Your task to perform on an android device: Show the shopping cart on amazon.com. Search for "amazon basics triple a" on amazon.com, select the first entry, and add it to the cart. Image 0: 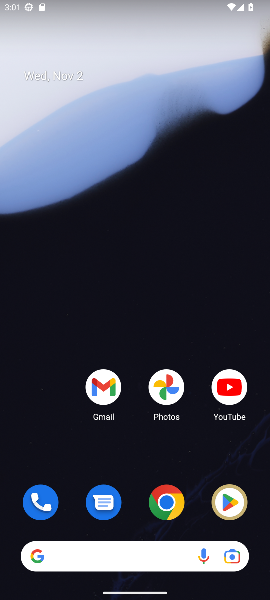
Step 0: click (171, 503)
Your task to perform on an android device: Show the shopping cart on amazon.com. Search for "amazon basics triple a" on amazon.com, select the first entry, and add it to the cart. Image 1: 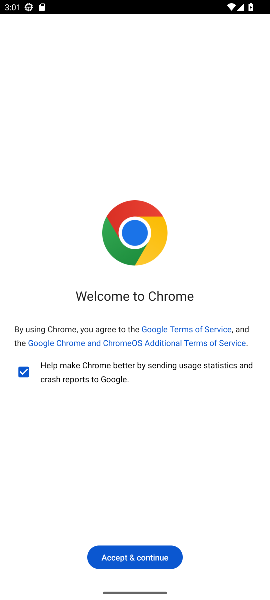
Step 1: click (129, 555)
Your task to perform on an android device: Show the shopping cart on amazon.com. Search for "amazon basics triple a" on amazon.com, select the first entry, and add it to the cart. Image 2: 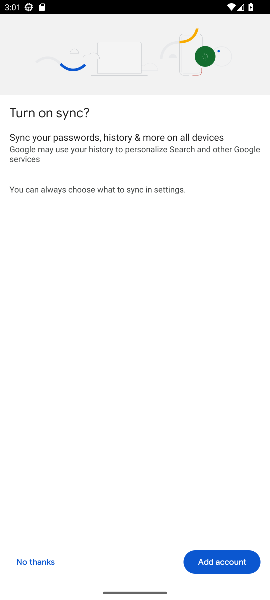
Step 2: click (20, 557)
Your task to perform on an android device: Show the shopping cart on amazon.com. Search for "amazon basics triple a" on amazon.com, select the first entry, and add it to the cart. Image 3: 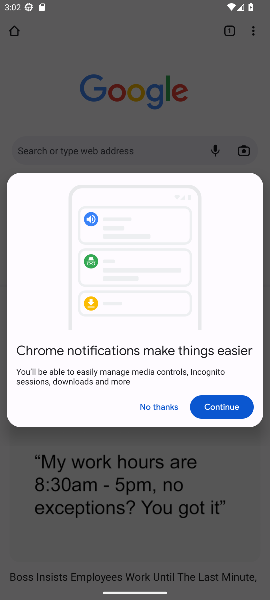
Step 3: click (159, 402)
Your task to perform on an android device: Show the shopping cart on amazon.com. Search for "amazon basics triple a" on amazon.com, select the first entry, and add it to the cart. Image 4: 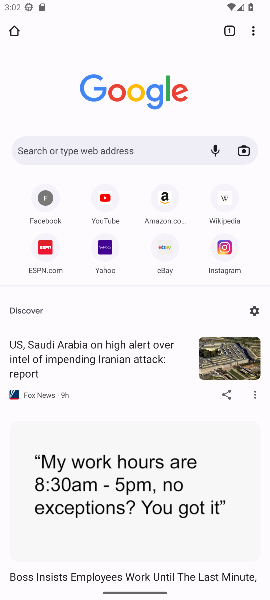
Step 4: click (165, 201)
Your task to perform on an android device: Show the shopping cart on amazon.com. Search for "amazon basics triple a" on amazon.com, select the first entry, and add it to the cart. Image 5: 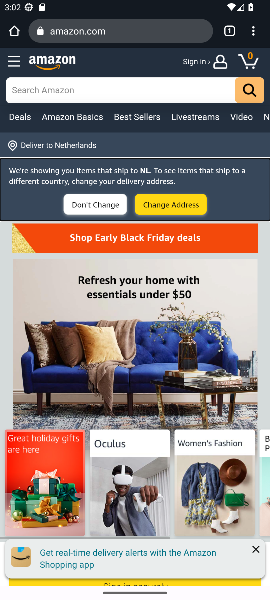
Step 5: click (41, 89)
Your task to perform on an android device: Show the shopping cart on amazon.com. Search for "amazon basics triple a" on amazon.com, select the first entry, and add it to the cart. Image 6: 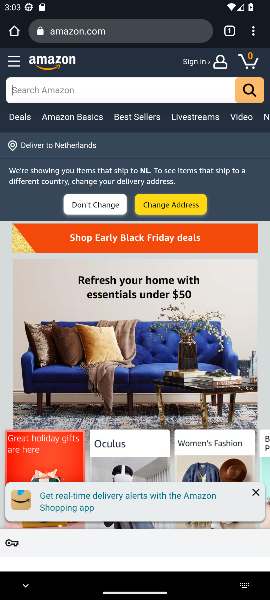
Step 6: type "amazon basics triple a"
Your task to perform on an android device: Show the shopping cart on amazon.com. Search for "amazon basics triple a" on amazon.com, select the first entry, and add it to the cart. Image 7: 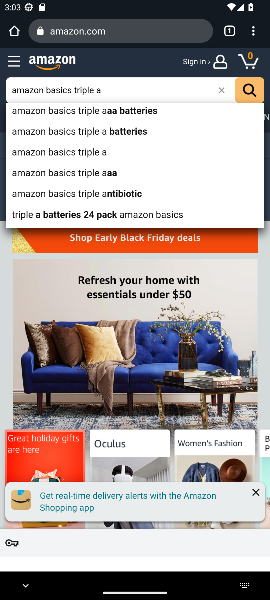
Step 7: click (95, 149)
Your task to perform on an android device: Show the shopping cart on amazon.com. Search for "amazon basics triple a" on amazon.com, select the first entry, and add it to the cart. Image 8: 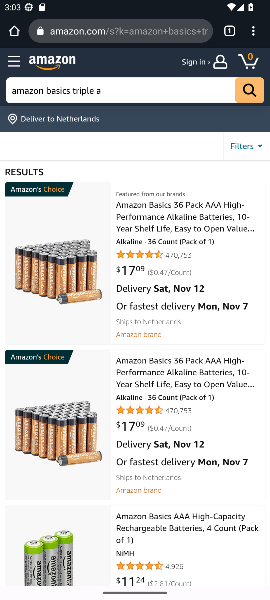
Step 8: click (114, 224)
Your task to perform on an android device: Show the shopping cart on amazon.com. Search for "amazon basics triple a" on amazon.com, select the first entry, and add it to the cart. Image 9: 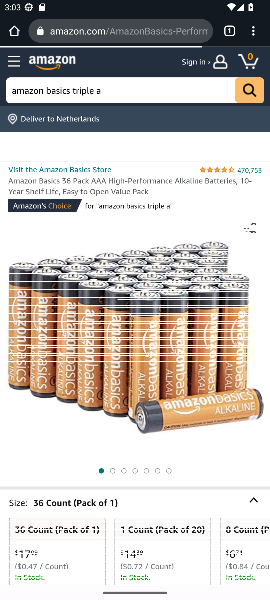
Step 9: drag from (135, 473) to (108, 279)
Your task to perform on an android device: Show the shopping cart on amazon.com. Search for "amazon basics triple a" on amazon.com, select the first entry, and add it to the cart. Image 10: 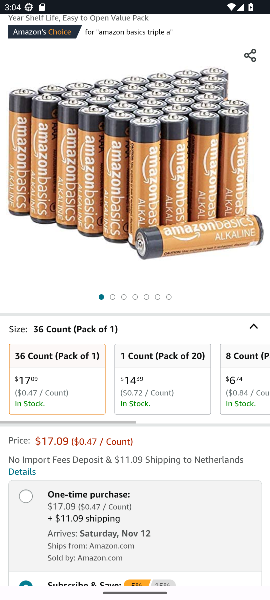
Step 10: drag from (133, 505) to (111, 229)
Your task to perform on an android device: Show the shopping cart on amazon.com. Search for "amazon basics triple a" on amazon.com, select the first entry, and add it to the cart. Image 11: 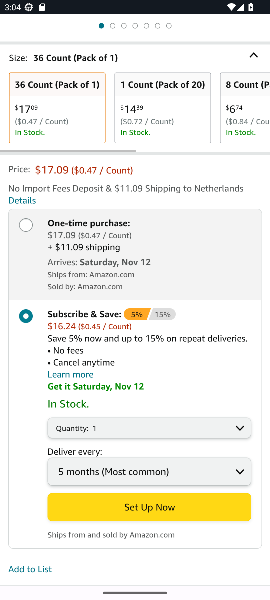
Step 11: drag from (135, 541) to (138, 221)
Your task to perform on an android device: Show the shopping cart on amazon.com. Search for "amazon basics triple a" on amazon.com, select the first entry, and add it to the cart. Image 12: 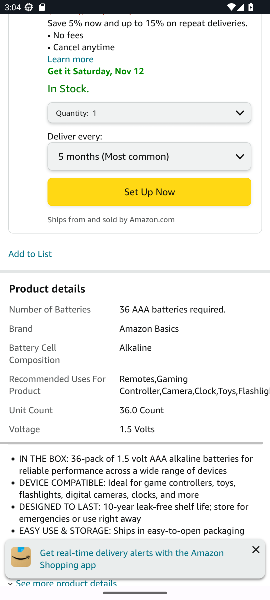
Step 12: drag from (128, 512) to (125, 182)
Your task to perform on an android device: Show the shopping cart on amazon.com. Search for "amazon basics triple a" on amazon.com, select the first entry, and add it to the cart. Image 13: 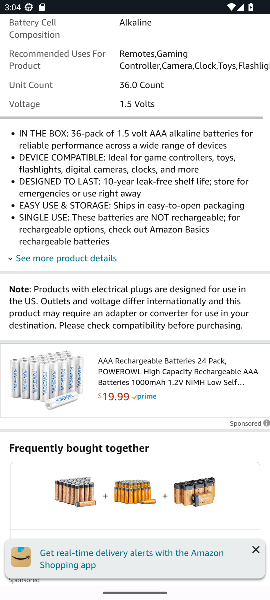
Step 13: drag from (166, 115) to (166, 412)
Your task to perform on an android device: Show the shopping cart on amazon.com. Search for "amazon basics triple a" on amazon.com, select the first entry, and add it to the cart. Image 14: 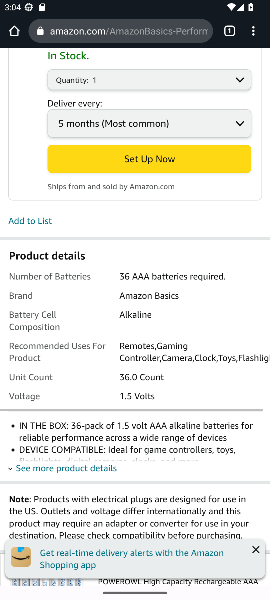
Step 14: drag from (165, 108) to (138, 407)
Your task to perform on an android device: Show the shopping cart on amazon.com. Search for "amazon basics triple a" on amazon.com, select the first entry, and add it to the cart. Image 15: 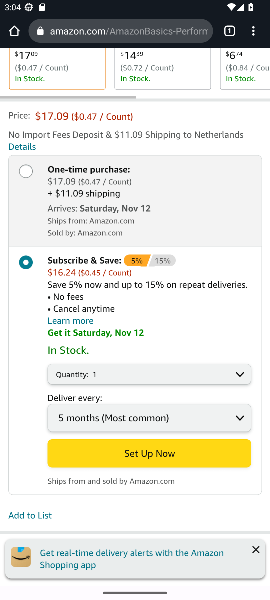
Step 15: drag from (155, 165) to (131, 525)
Your task to perform on an android device: Show the shopping cart on amazon.com. Search for "amazon basics triple a" on amazon.com, select the first entry, and add it to the cart. Image 16: 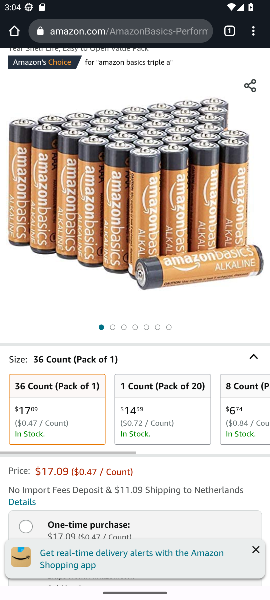
Step 16: drag from (120, 497) to (117, 180)
Your task to perform on an android device: Show the shopping cart on amazon.com. Search for "amazon basics triple a" on amazon.com, select the first entry, and add it to the cart. Image 17: 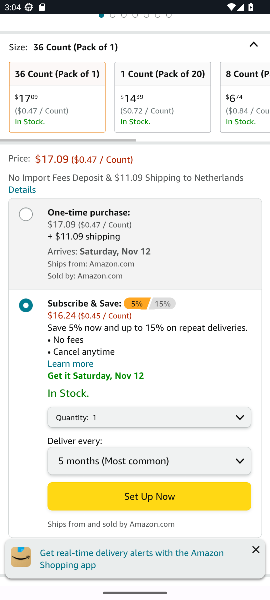
Step 17: drag from (122, 509) to (97, 165)
Your task to perform on an android device: Show the shopping cart on amazon.com. Search for "amazon basics triple a" on amazon.com, select the first entry, and add it to the cart. Image 18: 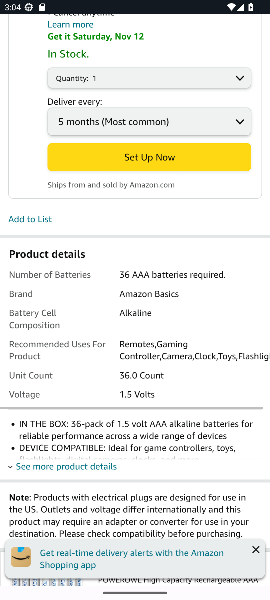
Step 18: click (152, 163)
Your task to perform on an android device: Show the shopping cart on amazon.com. Search for "amazon basics triple a" on amazon.com, select the first entry, and add it to the cart. Image 19: 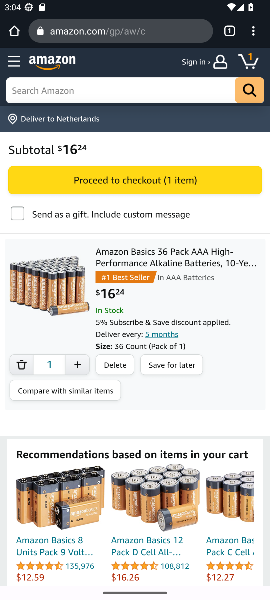
Step 19: task complete